Your task to perform on an android device: Open Amazon Image 0: 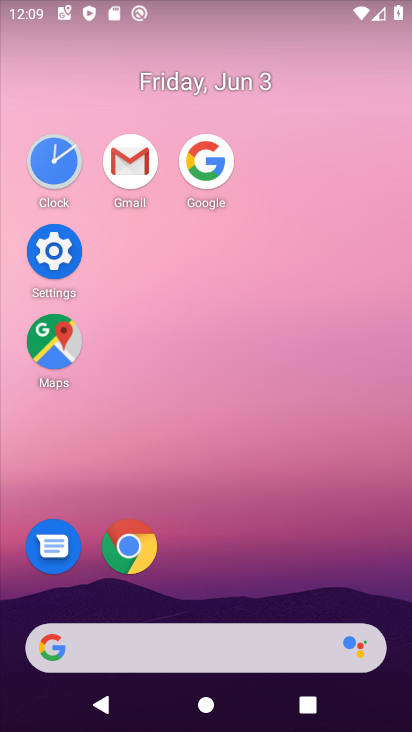
Step 0: click (131, 543)
Your task to perform on an android device: Open Amazon Image 1: 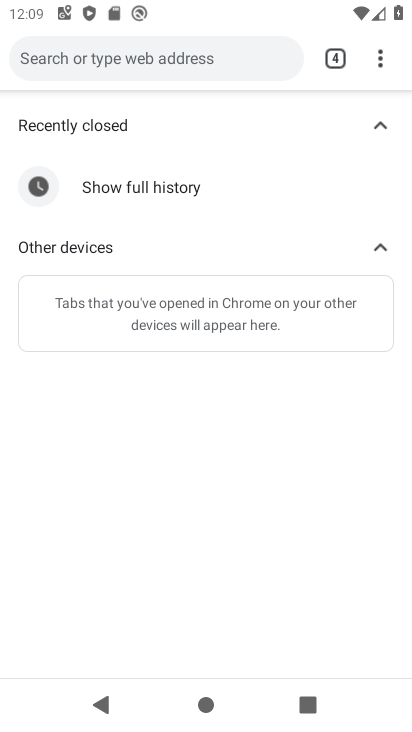
Step 1: click (342, 52)
Your task to perform on an android device: Open Amazon Image 2: 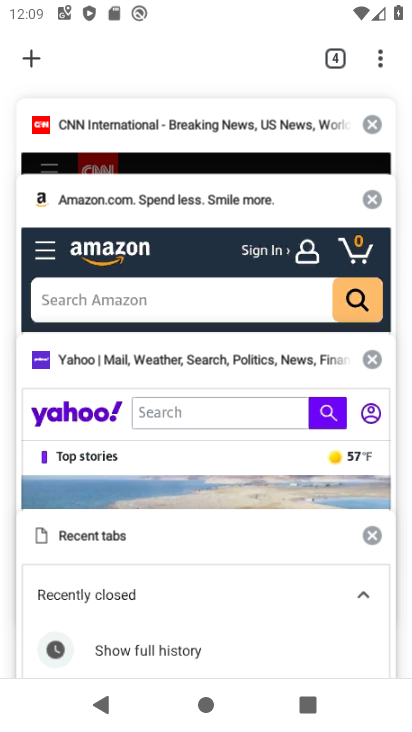
Step 2: click (191, 222)
Your task to perform on an android device: Open Amazon Image 3: 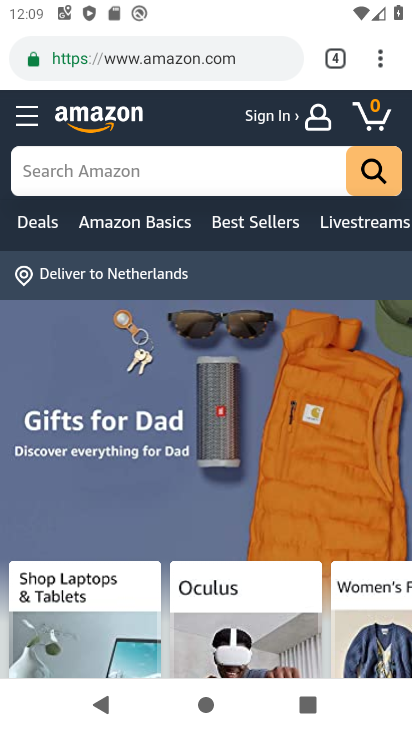
Step 3: task complete